Your task to perform on an android device: turn off priority inbox in the gmail app Image 0: 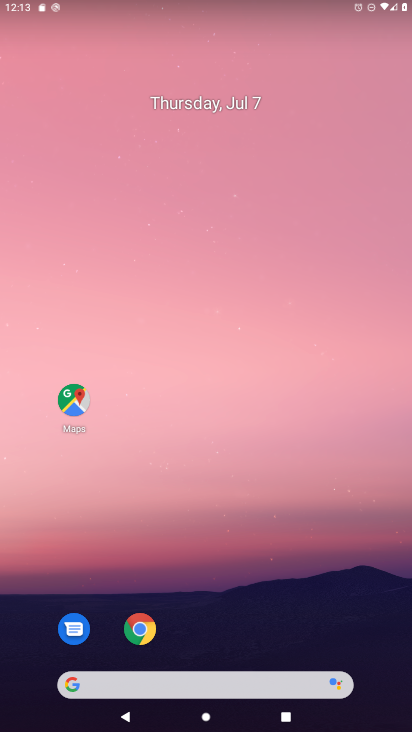
Step 0: drag from (193, 626) to (215, 50)
Your task to perform on an android device: turn off priority inbox in the gmail app Image 1: 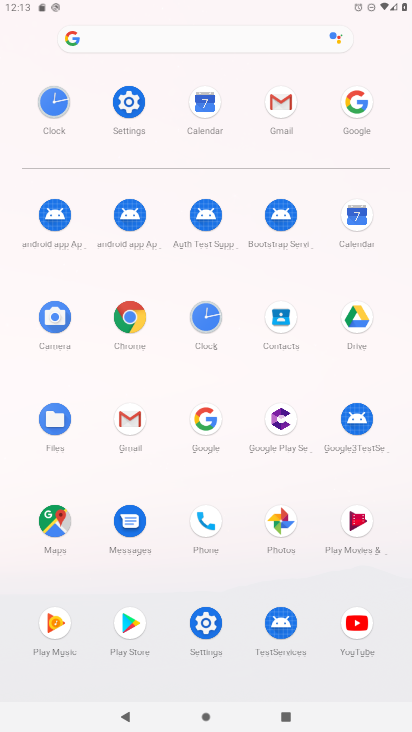
Step 1: click (293, 113)
Your task to perform on an android device: turn off priority inbox in the gmail app Image 2: 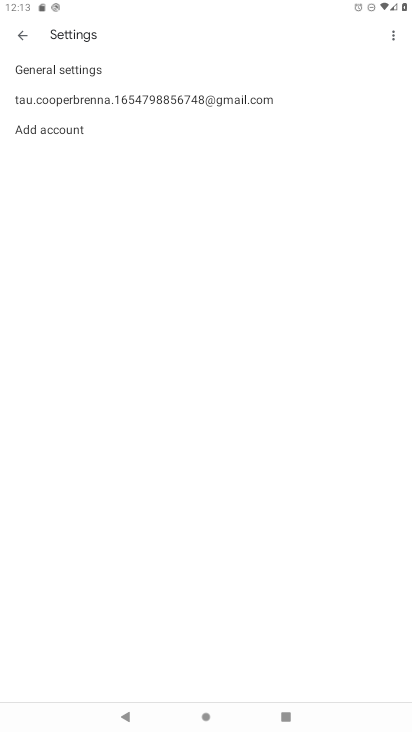
Step 2: click (53, 88)
Your task to perform on an android device: turn off priority inbox in the gmail app Image 3: 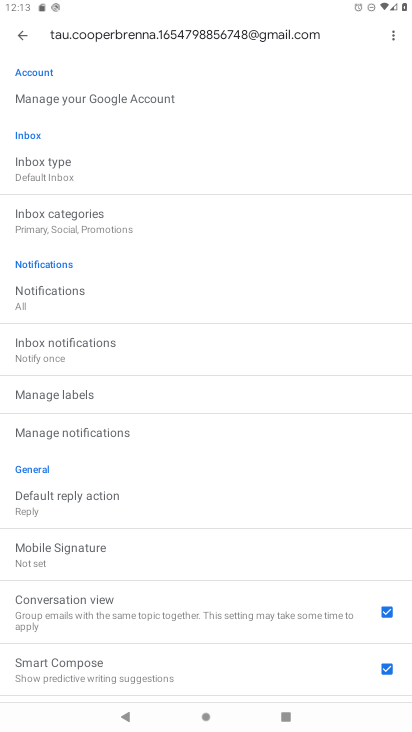
Step 3: click (67, 165)
Your task to perform on an android device: turn off priority inbox in the gmail app Image 4: 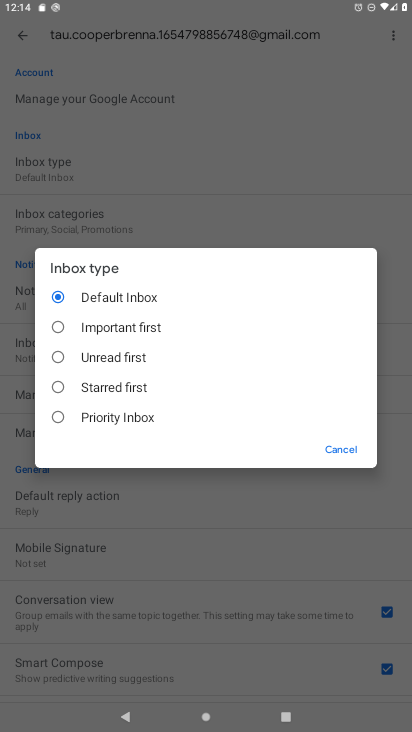
Step 4: task complete